Your task to perform on an android device: turn off javascript in the chrome app Image 0: 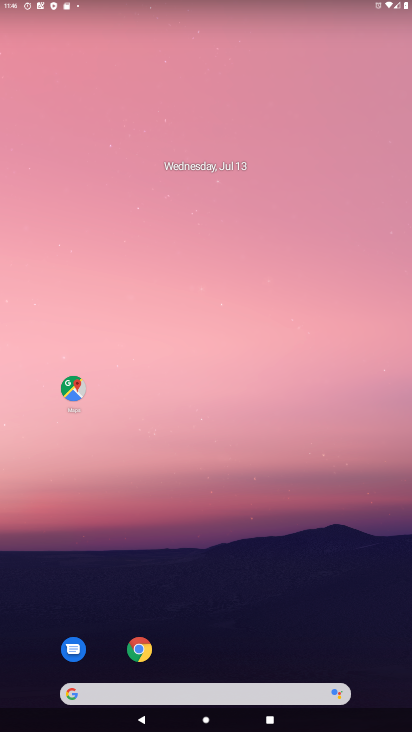
Step 0: click (141, 650)
Your task to perform on an android device: turn off javascript in the chrome app Image 1: 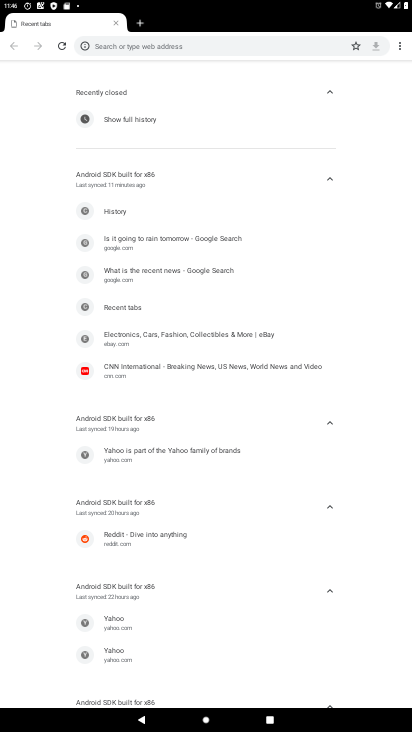
Step 1: click (400, 47)
Your task to perform on an android device: turn off javascript in the chrome app Image 2: 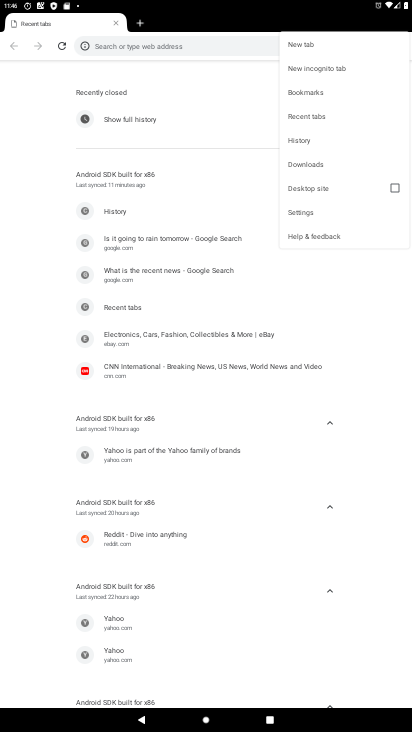
Step 2: click (304, 213)
Your task to perform on an android device: turn off javascript in the chrome app Image 3: 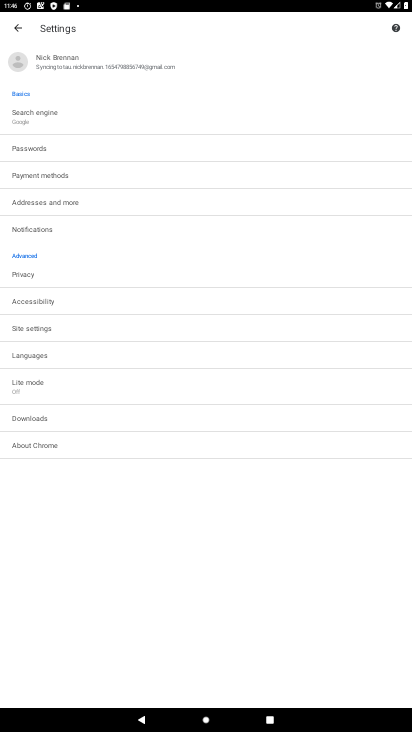
Step 3: click (44, 329)
Your task to perform on an android device: turn off javascript in the chrome app Image 4: 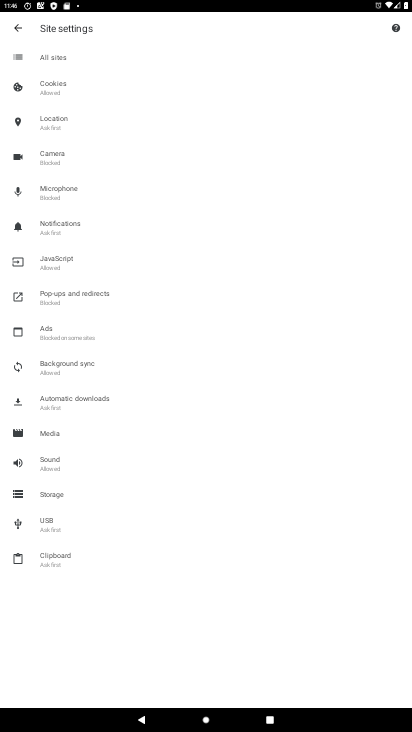
Step 4: click (56, 261)
Your task to perform on an android device: turn off javascript in the chrome app Image 5: 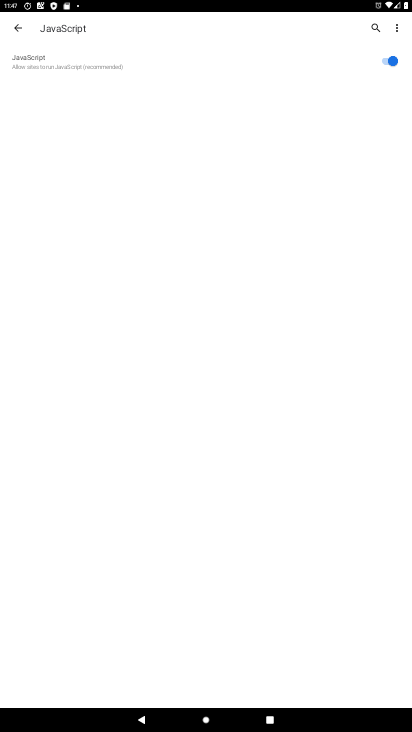
Step 5: click (386, 58)
Your task to perform on an android device: turn off javascript in the chrome app Image 6: 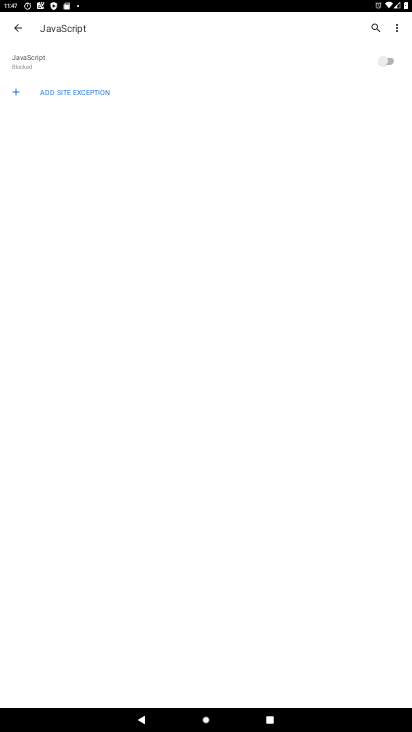
Step 6: task complete